Your task to perform on an android device: Clear the cart on walmart.com. Search for jbl charge 4 on walmart.com, select the first entry, add it to the cart, then select checkout. Image 0: 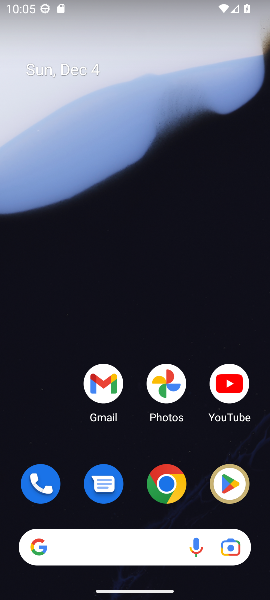
Step 0: click (171, 486)
Your task to perform on an android device: Clear the cart on walmart.com. Search for jbl charge 4 on walmart.com, select the first entry, add it to the cart, then select checkout. Image 1: 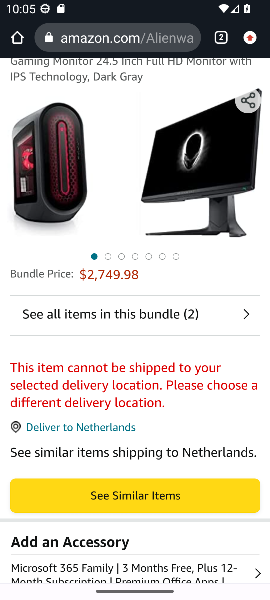
Step 1: click (120, 42)
Your task to perform on an android device: Clear the cart on walmart.com. Search for jbl charge 4 on walmart.com, select the first entry, add it to the cart, then select checkout. Image 2: 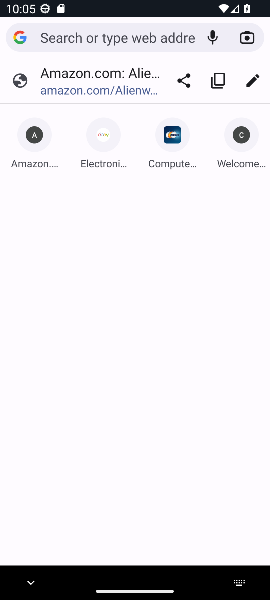
Step 2: type "walmart.com"
Your task to perform on an android device: Clear the cart on walmart.com. Search for jbl charge 4 on walmart.com, select the first entry, add it to the cart, then select checkout. Image 3: 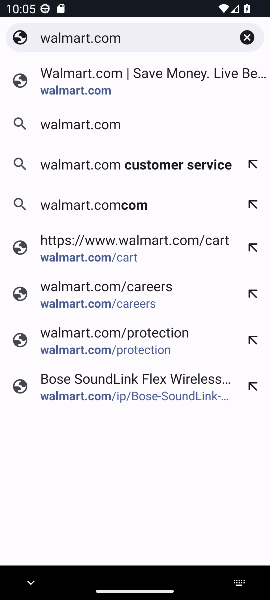
Step 3: click (84, 94)
Your task to perform on an android device: Clear the cart on walmart.com. Search for jbl charge 4 on walmart.com, select the first entry, add it to the cart, then select checkout. Image 4: 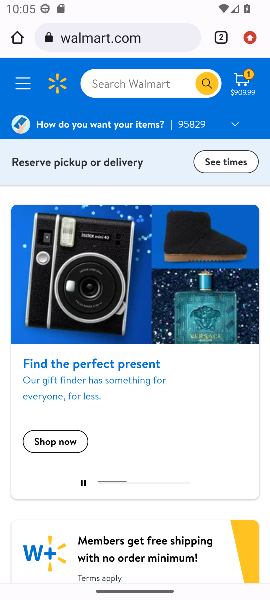
Step 4: click (244, 80)
Your task to perform on an android device: Clear the cart on walmart.com. Search for jbl charge 4 on walmart.com, select the first entry, add it to the cart, then select checkout. Image 5: 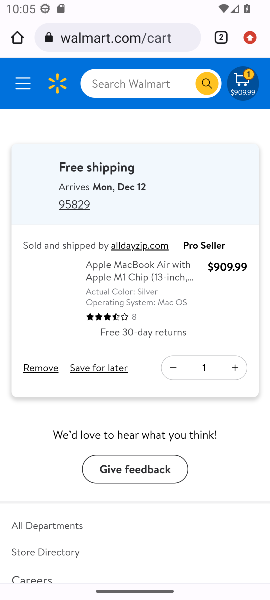
Step 5: click (35, 373)
Your task to perform on an android device: Clear the cart on walmart.com. Search for jbl charge 4 on walmart.com, select the first entry, add it to the cart, then select checkout. Image 6: 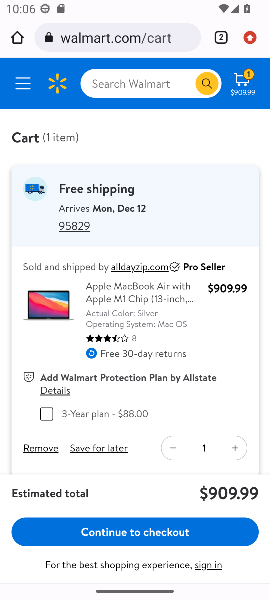
Step 6: click (30, 450)
Your task to perform on an android device: Clear the cart on walmart.com. Search for jbl charge 4 on walmart.com, select the first entry, add it to the cart, then select checkout. Image 7: 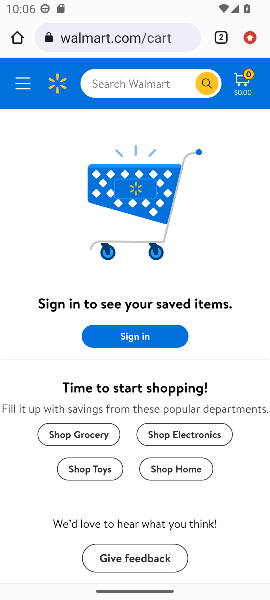
Step 7: click (121, 79)
Your task to perform on an android device: Clear the cart on walmart.com. Search for jbl charge 4 on walmart.com, select the first entry, add it to the cart, then select checkout. Image 8: 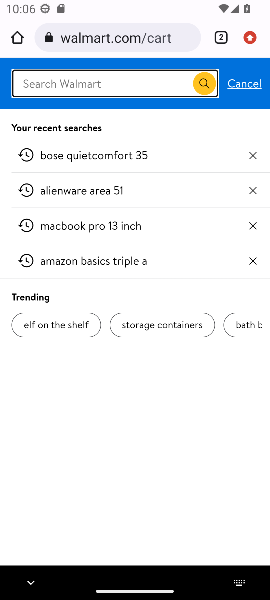
Step 8: type "jbl charge 4"
Your task to perform on an android device: Clear the cart on walmart.com. Search for jbl charge 4 on walmart.com, select the first entry, add it to the cart, then select checkout. Image 9: 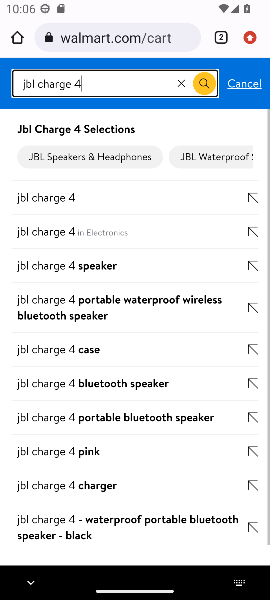
Step 9: click (56, 203)
Your task to perform on an android device: Clear the cart on walmart.com. Search for jbl charge 4 on walmart.com, select the first entry, add it to the cart, then select checkout. Image 10: 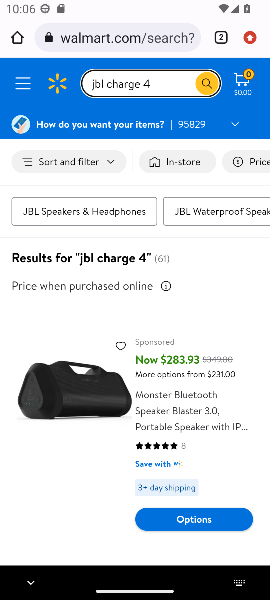
Step 10: task complete